Your task to perform on an android device: Open Youtube and go to the subscriptions tab Image 0: 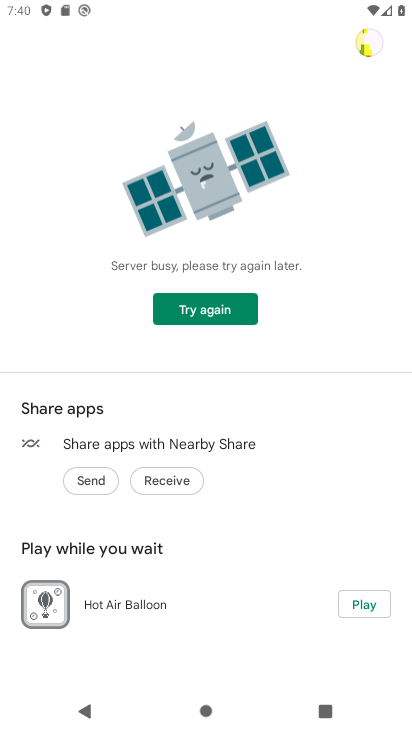
Step 0: press back button
Your task to perform on an android device: Open Youtube and go to the subscriptions tab Image 1: 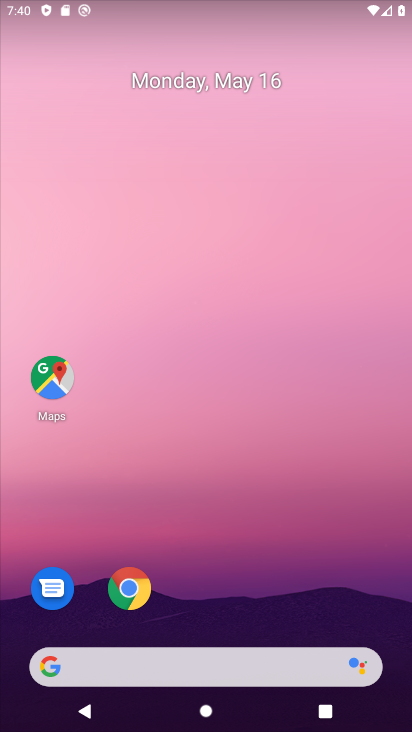
Step 1: drag from (237, 578) to (219, 56)
Your task to perform on an android device: Open Youtube and go to the subscriptions tab Image 2: 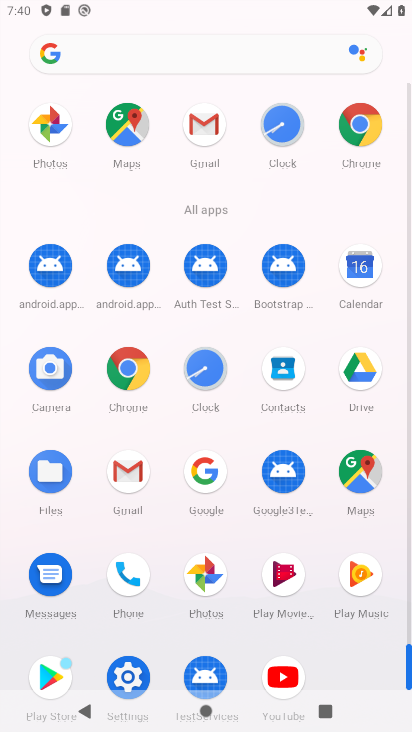
Step 2: click (284, 674)
Your task to perform on an android device: Open Youtube and go to the subscriptions tab Image 3: 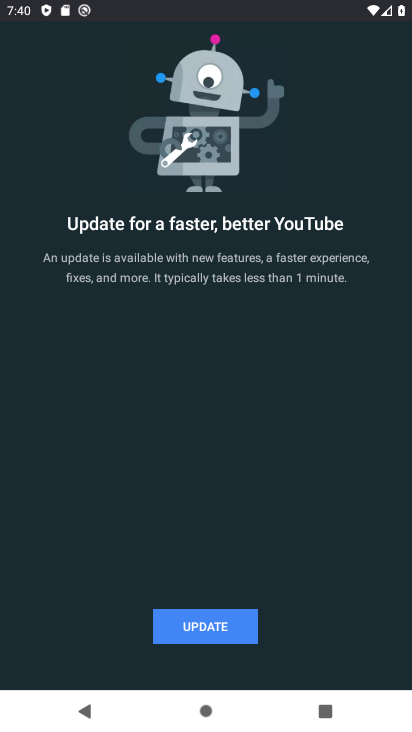
Step 3: click (226, 631)
Your task to perform on an android device: Open Youtube and go to the subscriptions tab Image 4: 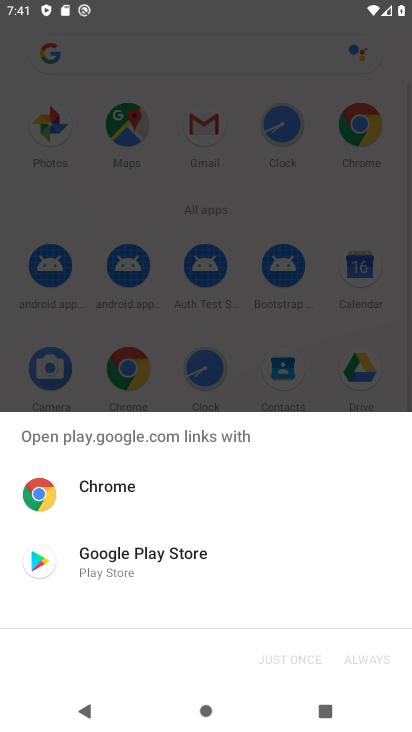
Step 4: click (160, 546)
Your task to perform on an android device: Open Youtube and go to the subscriptions tab Image 5: 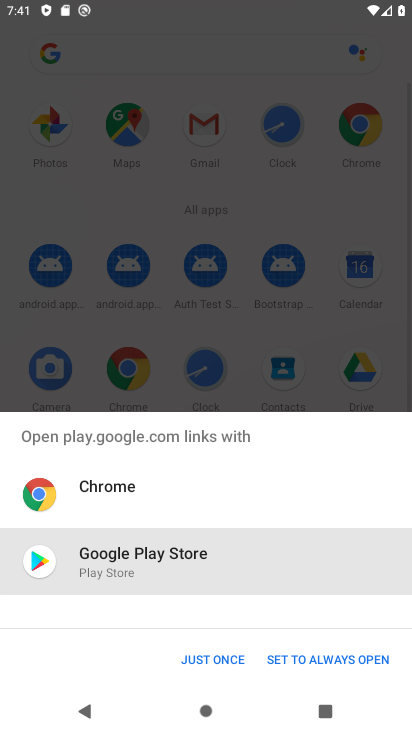
Step 5: click (215, 657)
Your task to perform on an android device: Open Youtube and go to the subscriptions tab Image 6: 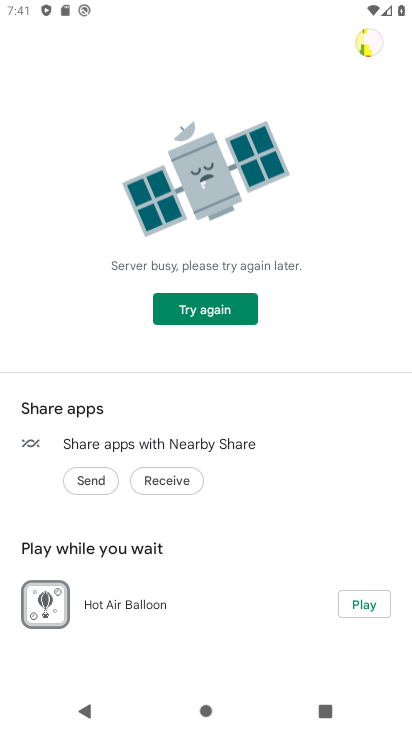
Step 6: task complete